Your task to perform on an android device: Turn on the flashlight Image 0: 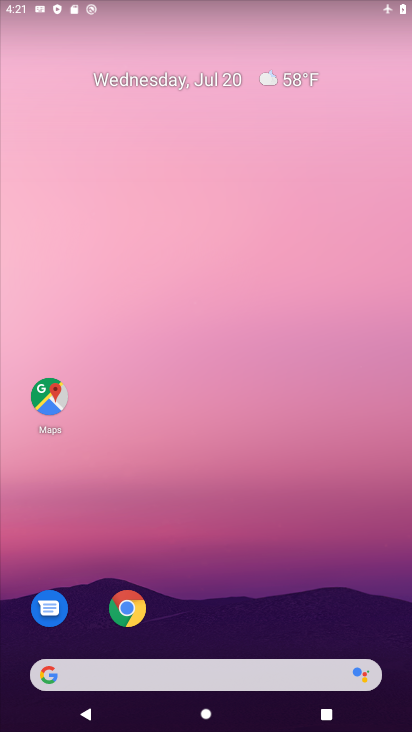
Step 0: drag from (345, 27) to (294, 451)
Your task to perform on an android device: Turn on the flashlight Image 1: 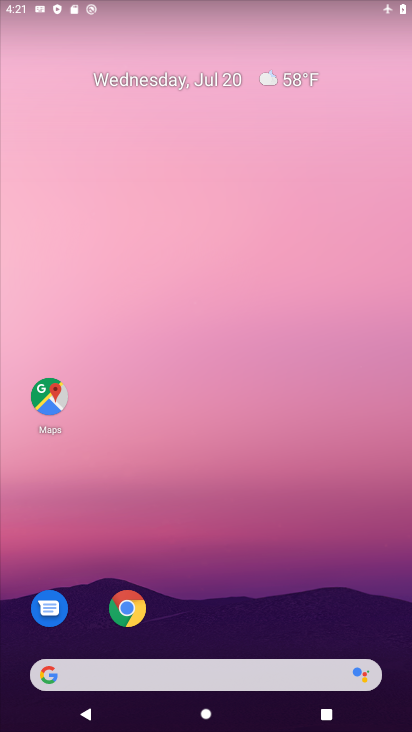
Step 1: task complete